Your task to perform on an android device: stop showing notifications on the lock screen Image 0: 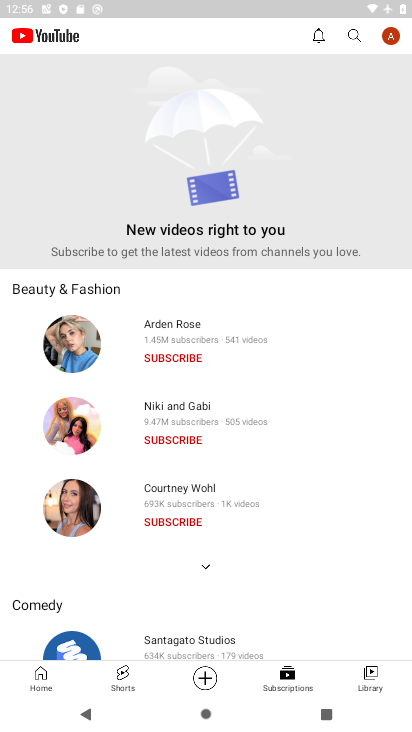
Step 0: press home button
Your task to perform on an android device: stop showing notifications on the lock screen Image 1: 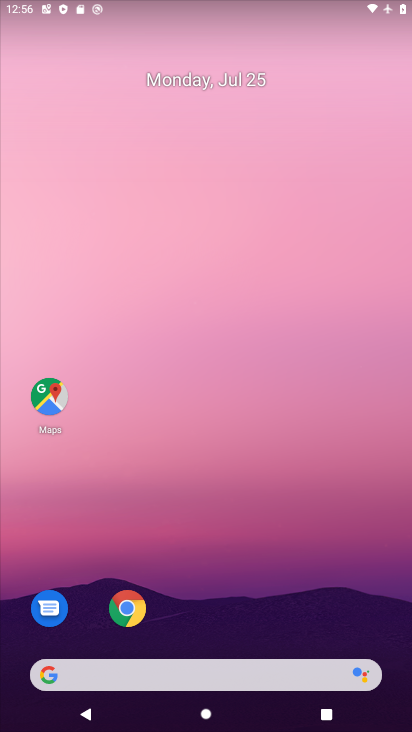
Step 1: drag from (204, 657) to (312, 185)
Your task to perform on an android device: stop showing notifications on the lock screen Image 2: 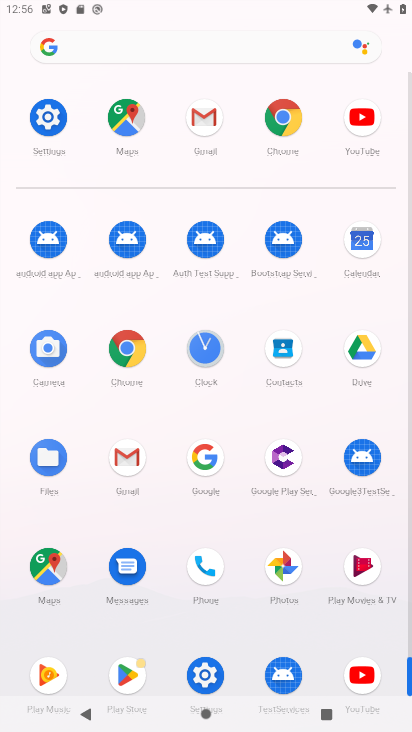
Step 2: click (51, 144)
Your task to perform on an android device: stop showing notifications on the lock screen Image 3: 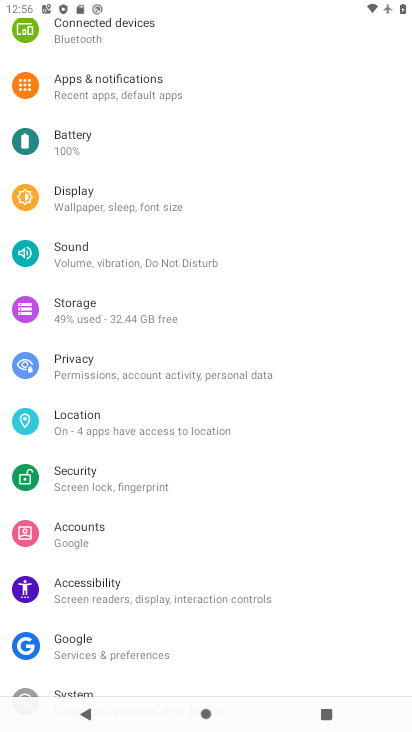
Step 3: click (135, 91)
Your task to perform on an android device: stop showing notifications on the lock screen Image 4: 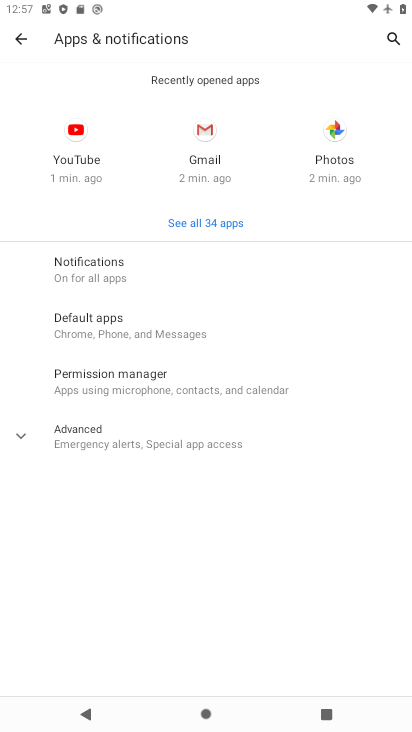
Step 4: click (144, 269)
Your task to perform on an android device: stop showing notifications on the lock screen Image 5: 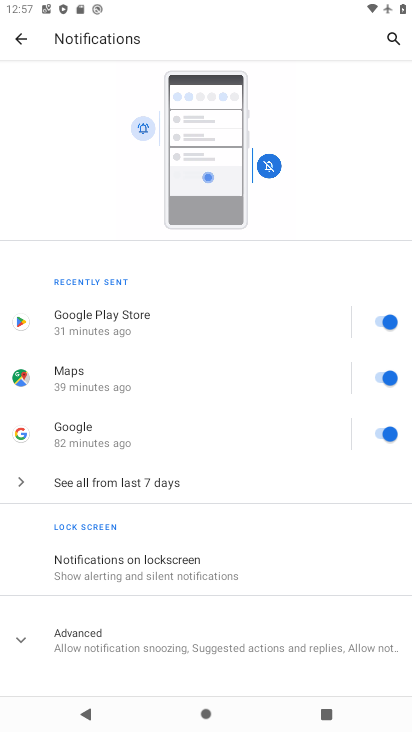
Step 5: drag from (163, 612) to (204, 429)
Your task to perform on an android device: stop showing notifications on the lock screen Image 6: 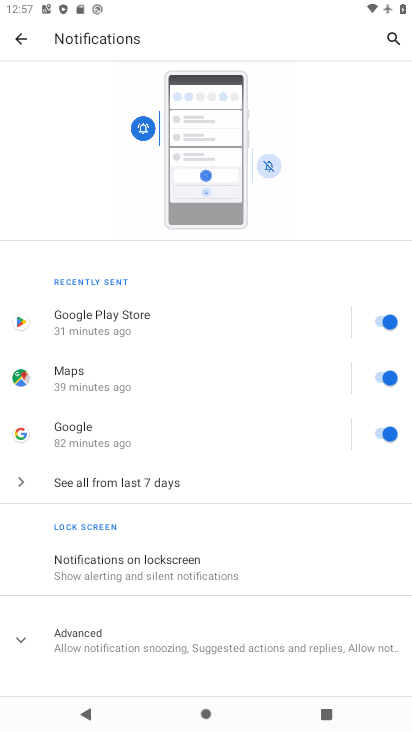
Step 6: click (164, 570)
Your task to perform on an android device: stop showing notifications on the lock screen Image 7: 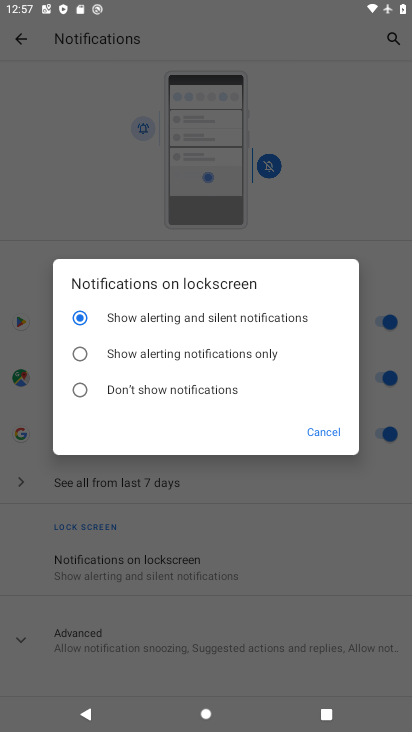
Step 7: click (140, 389)
Your task to perform on an android device: stop showing notifications on the lock screen Image 8: 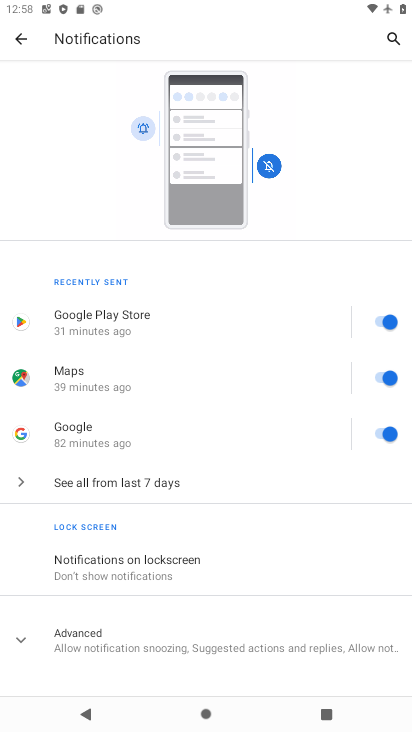
Step 8: task complete